Your task to perform on an android device: Go to internet settings Image 0: 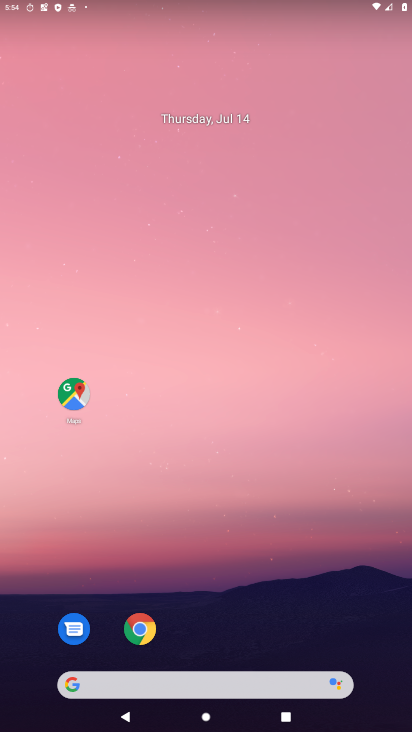
Step 0: drag from (178, 704) to (355, 10)
Your task to perform on an android device: Go to internet settings Image 1: 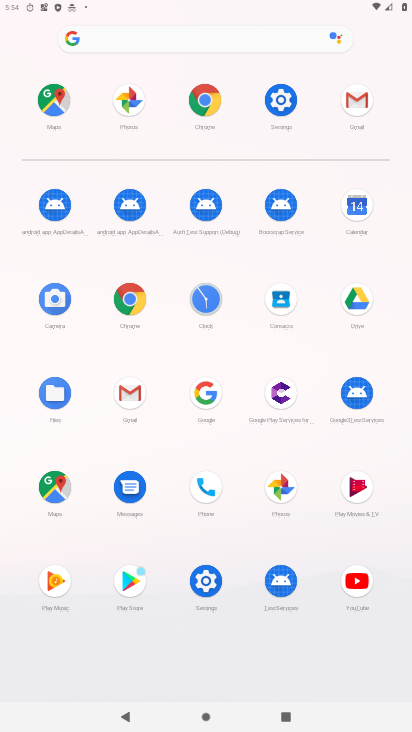
Step 1: click (281, 91)
Your task to perform on an android device: Go to internet settings Image 2: 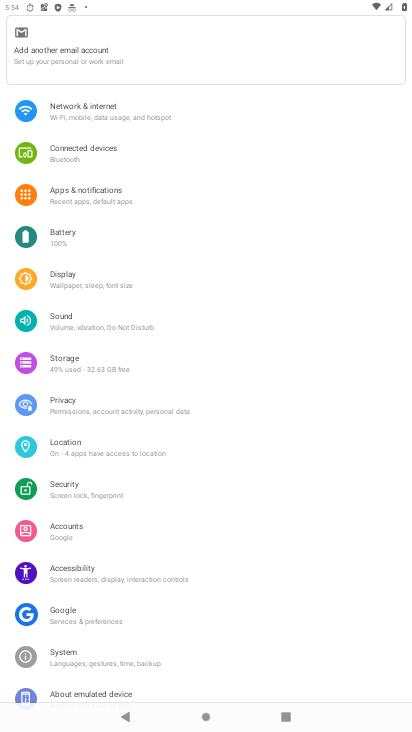
Step 2: click (129, 110)
Your task to perform on an android device: Go to internet settings Image 3: 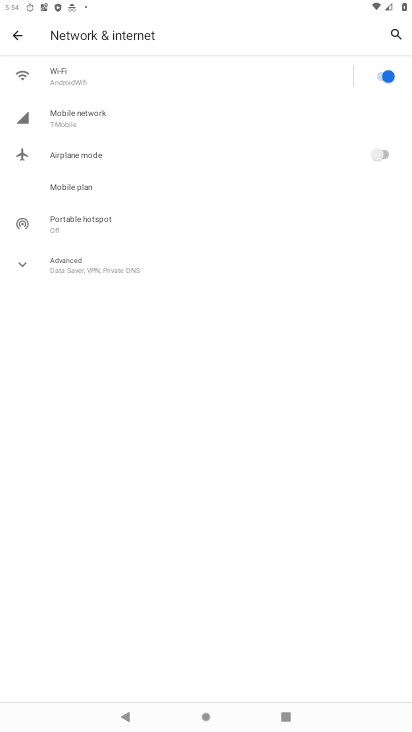
Step 3: task complete